Your task to perform on an android device: Open network settings Image 0: 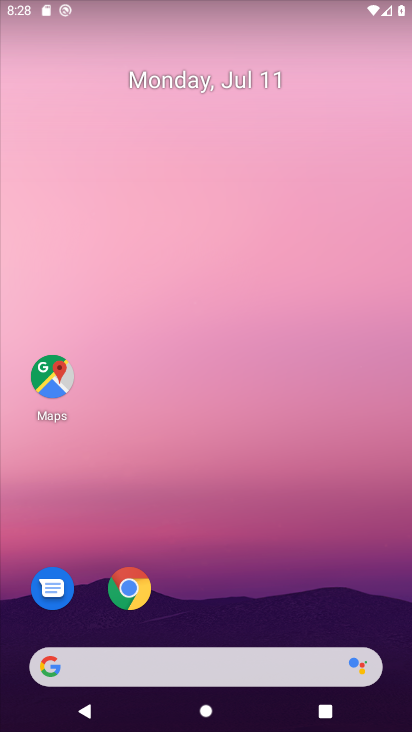
Step 0: drag from (259, 597) to (328, 4)
Your task to perform on an android device: Open network settings Image 1: 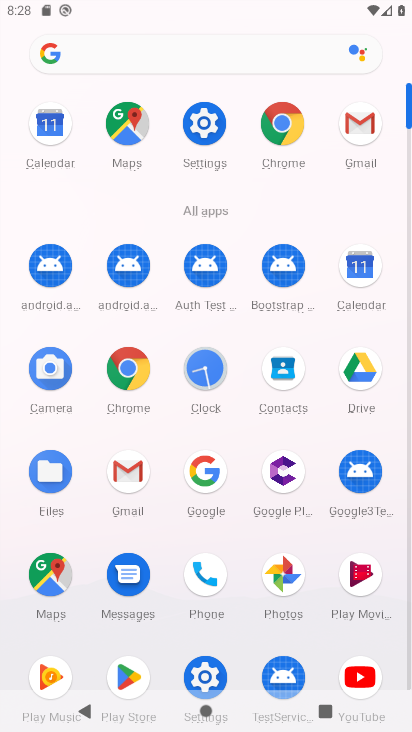
Step 1: click (211, 129)
Your task to perform on an android device: Open network settings Image 2: 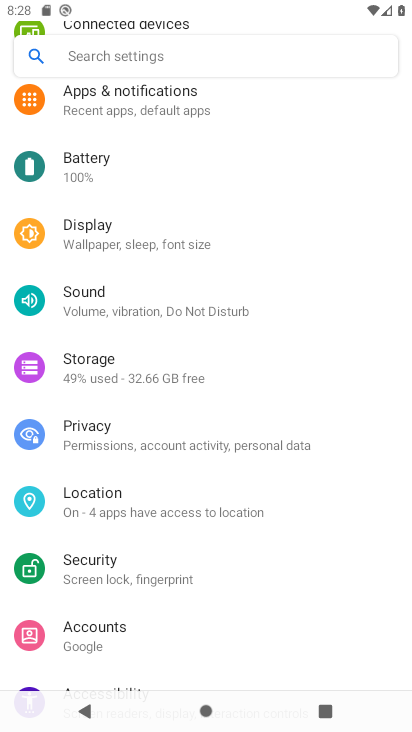
Step 2: drag from (242, 112) to (242, 223)
Your task to perform on an android device: Open network settings Image 3: 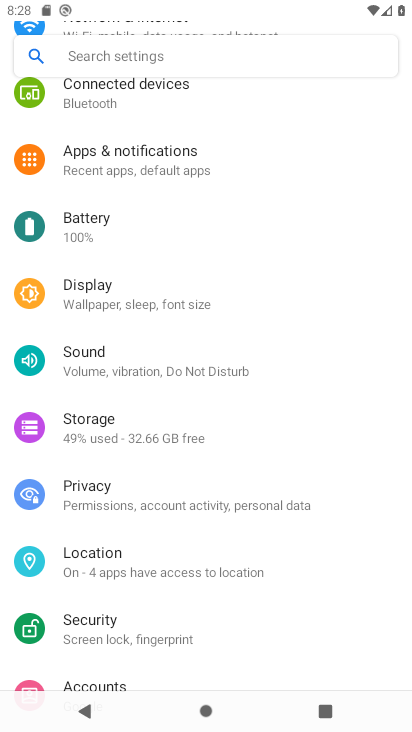
Step 3: drag from (199, 101) to (209, 318)
Your task to perform on an android device: Open network settings Image 4: 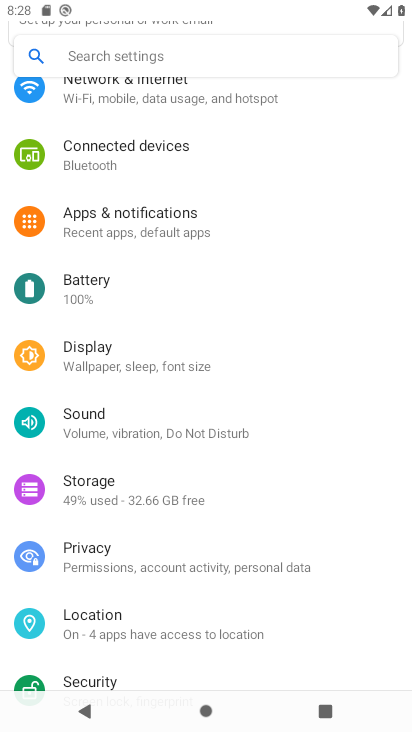
Step 4: click (221, 92)
Your task to perform on an android device: Open network settings Image 5: 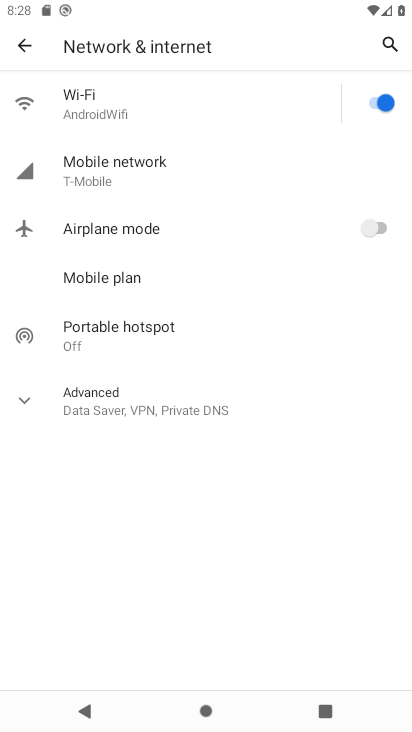
Step 5: click (108, 157)
Your task to perform on an android device: Open network settings Image 6: 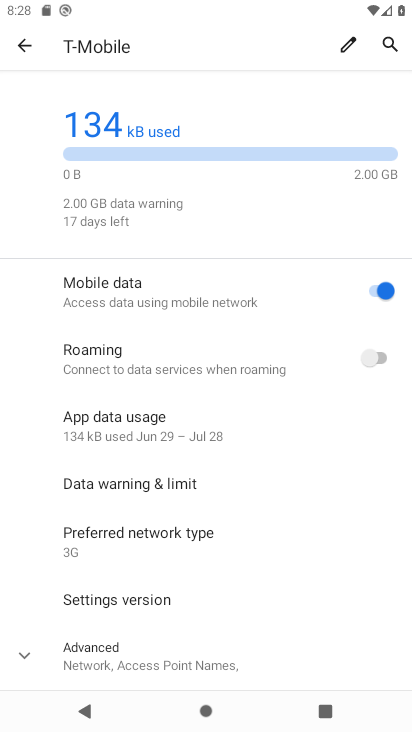
Step 6: task complete